Your task to perform on an android device: Open internet settings Image 0: 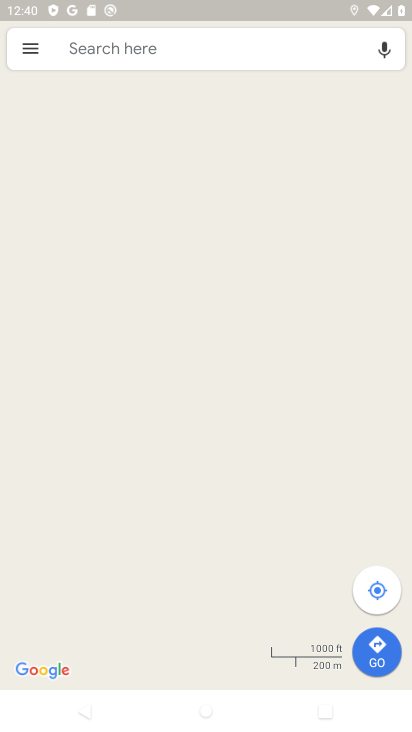
Step 0: press home button
Your task to perform on an android device: Open internet settings Image 1: 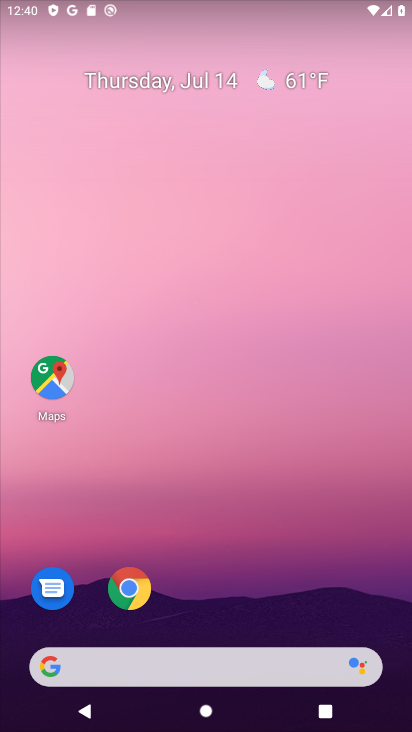
Step 1: drag from (210, 597) to (253, 13)
Your task to perform on an android device: Open internet settings Image 2: 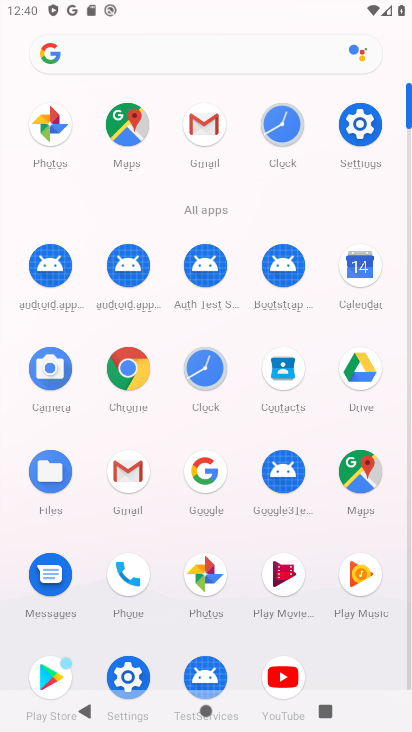
Step 2: click (369, 135)
Your task to perform on an android device: Open internet settings Image 3: 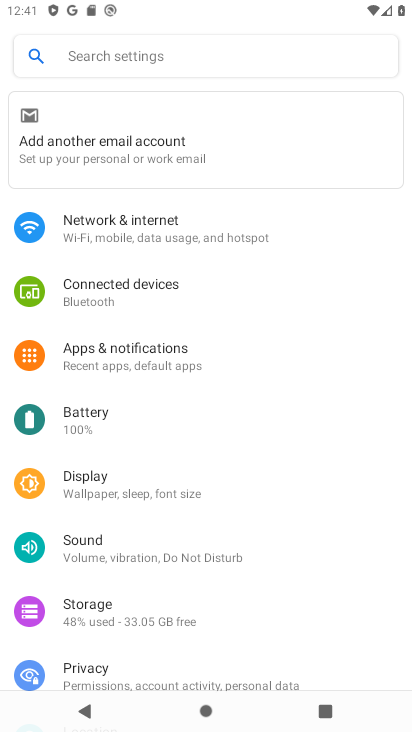
Step 3: click (207, 231)
Your task to perform on an android device: Open internet settings Image 4: 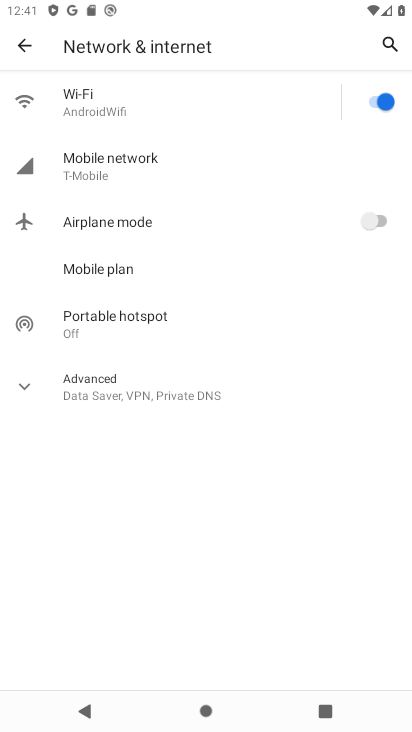
Step 4: task complete